Your task to perform on an android device: When is my next meeting? Image 0: 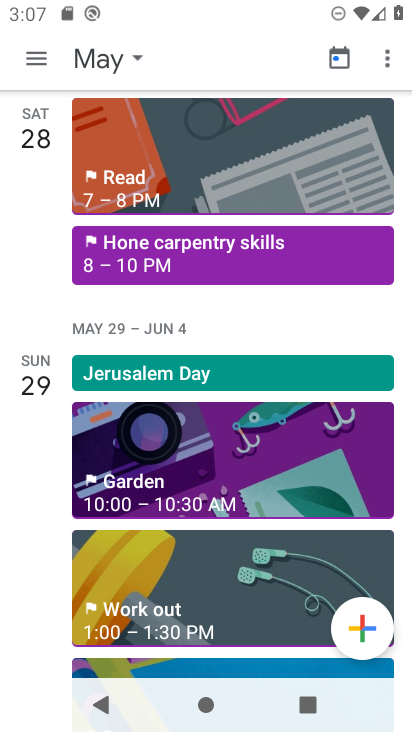
Step 0: drag from (23, 364) to (37, 81)
Your task to perform on an android device: When is my next meeting? Image 1: 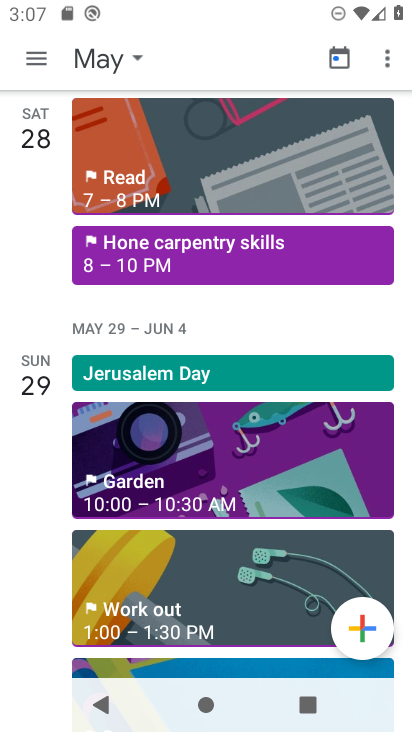
Step 1: task complete